Your task to perform on an android device: change timer sound Image 0: 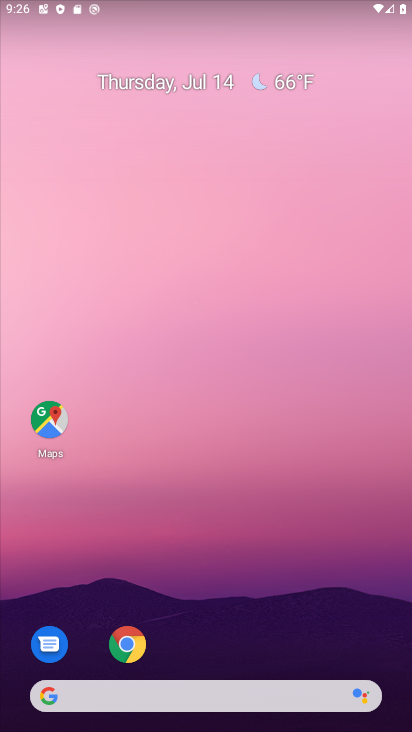
Step 0: drag from (318, 672) to (302, 67)
Your task to perform on an android device: change timer sound Image 1: 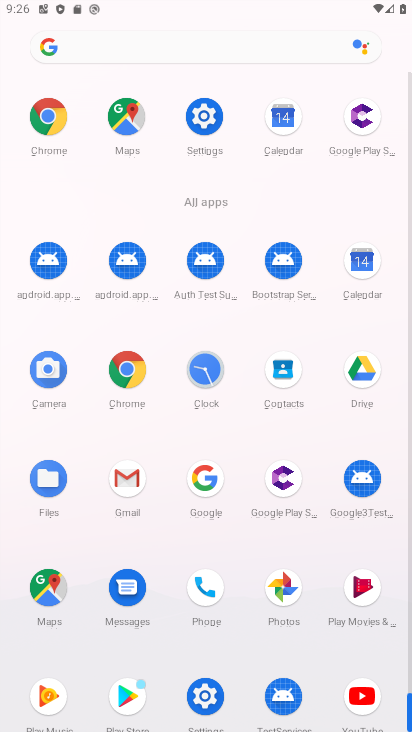
Step 1: click (201, 364)
Your task to perform on an android device: change timer sound Image 2: 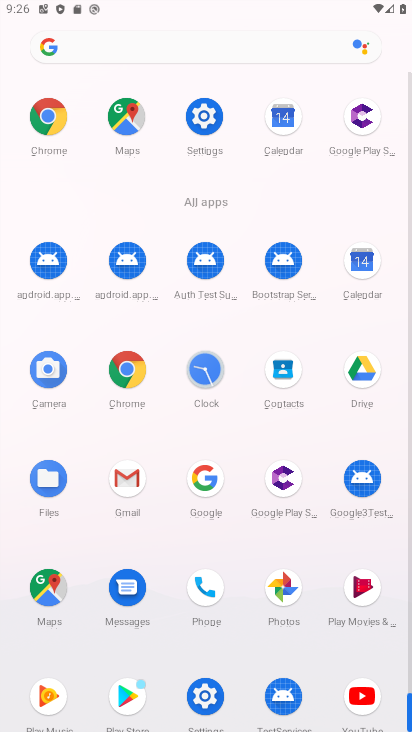
Step 2: click (201, 364)
Your task to perform on an android device: change timer sound Image 3: 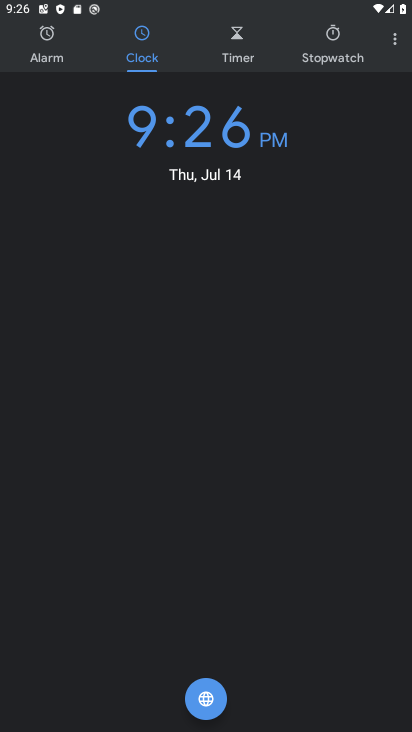
Step 3: click (389, 44)
Your task to perform on an android device: change timer sound Image 4: 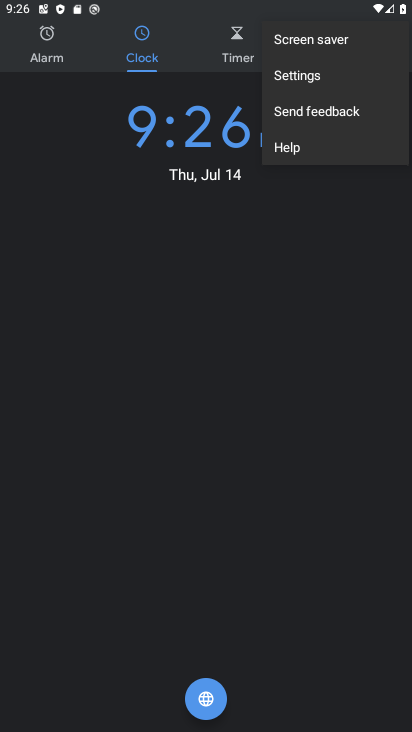
Step 4: click (286, 76)
Your task to perform on an android device: change timer sound Image 5: 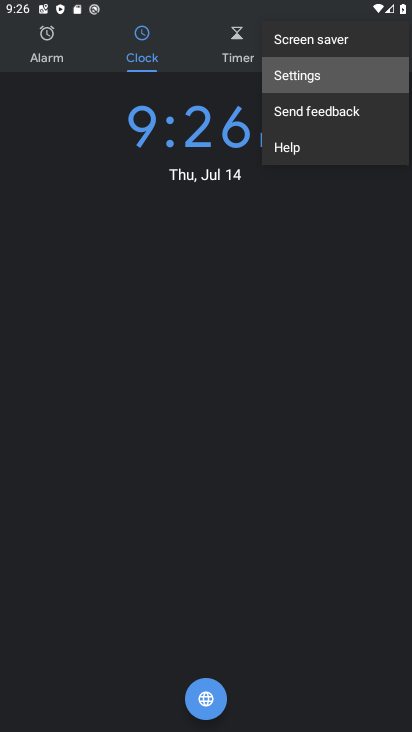
Step 5: click (288, 77)
Your task to perform on an android device: change timer sound Image 6: 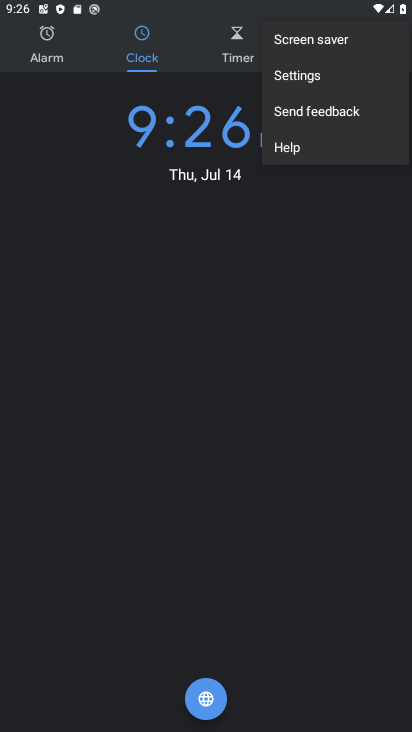
Step 6: click (288, 77)
Your task to perform on an android device: change timer sound Image 7: 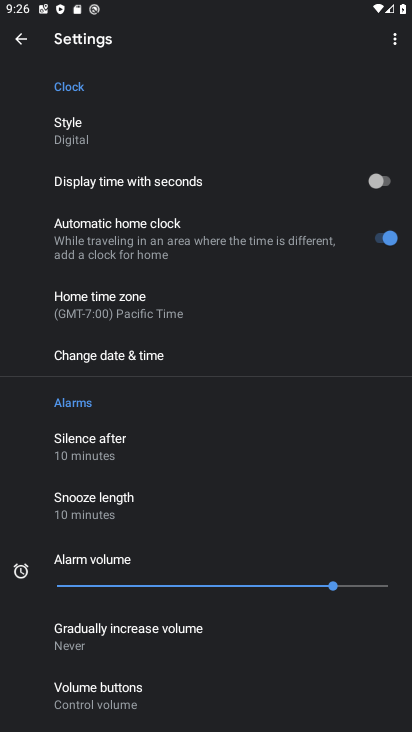
Step 7: drag from (117, 578) to (159, 309)
Your task to perform on an android device: change timer sound Image 8: 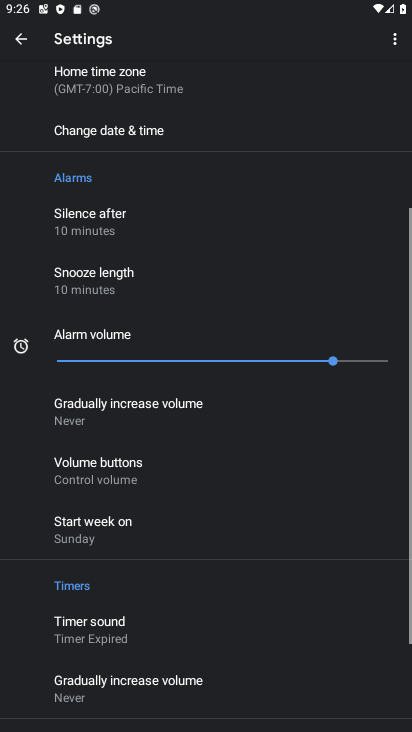
Step 8: drag from (162, 475) to (163, 233)
Your task to perform on an android device: change timer sound Image 9: 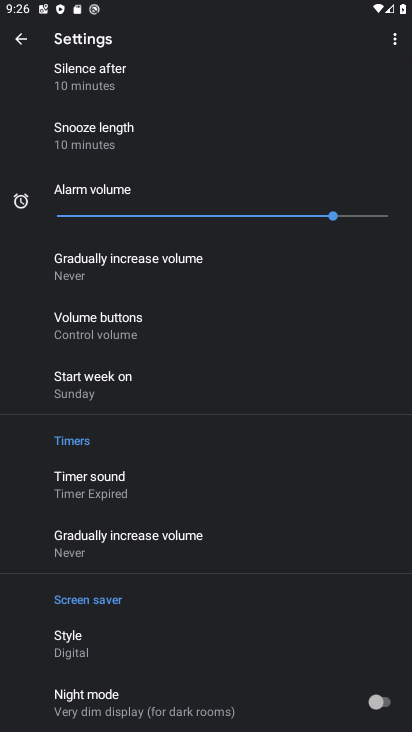
Step 9: click (78, 480)
Your task to perform on an android device: change timer sound Image 10: 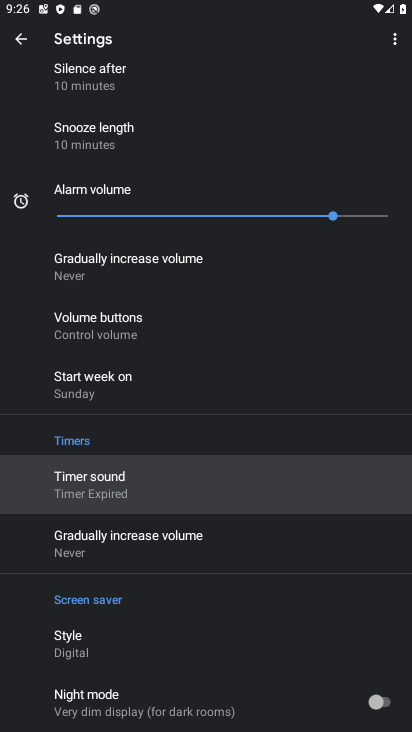
Step 10: click (83, 484)
Your task to perform on an android device: change timer sound Image 11: 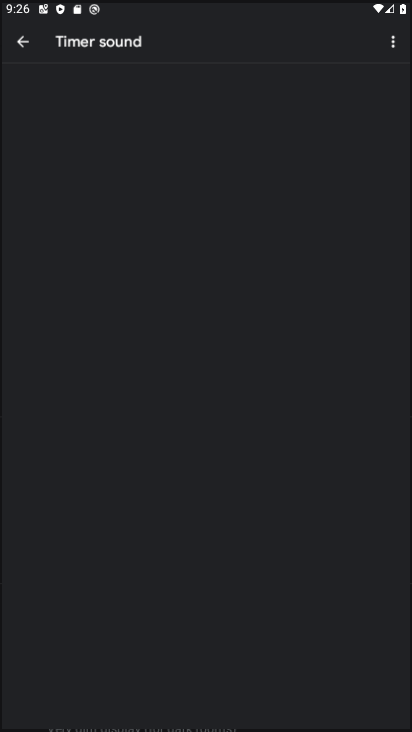
Step 11: click (84, 483)
Your task to perform on an android device: change timer sound Image 12: 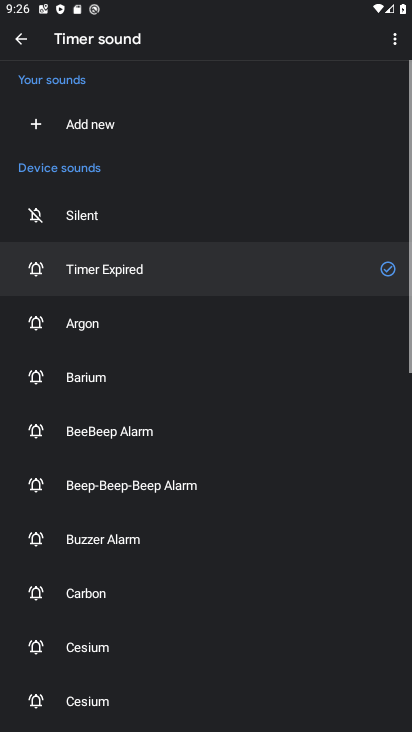
Step 12: click (46, 437)
Your task to perform on an android device: change timer sound Image 13: 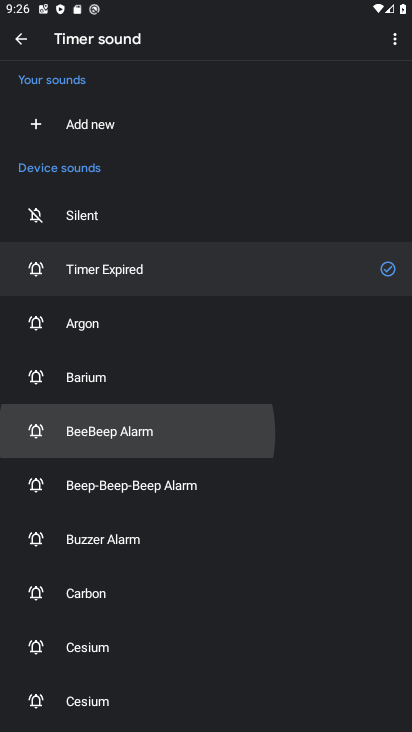
Step 13: click (46, 436)
Your task to perform on an android device: change timer sound Image 14: 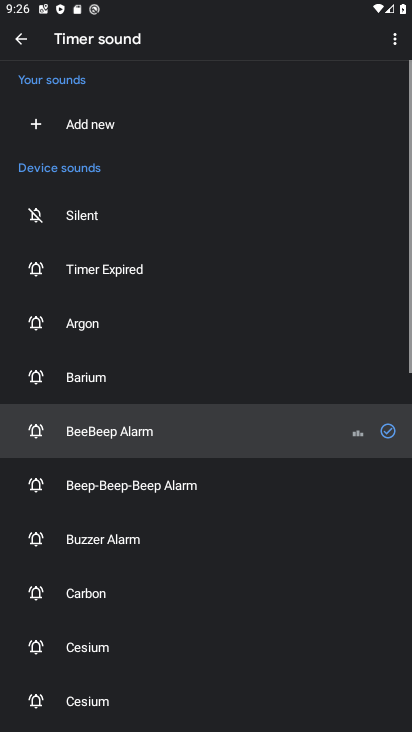
Step 14: click (63, 438)
Your task to perform on an android device: change timer sound Image 15: 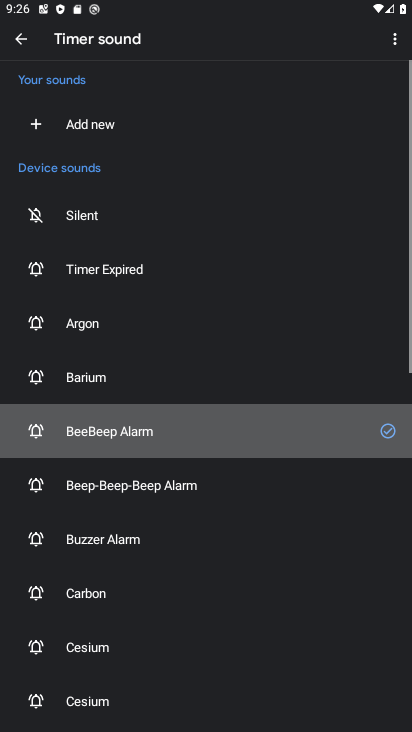
Step 15: click (63, 438)
Your task to perform on an android device: change timer sound Image 16: 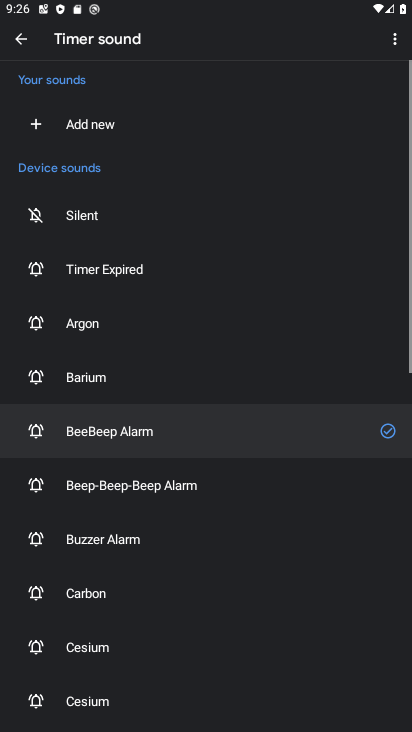
Step 16: task complete